Your task to perform on an android device: set default search engine in the chrome app Image 0: 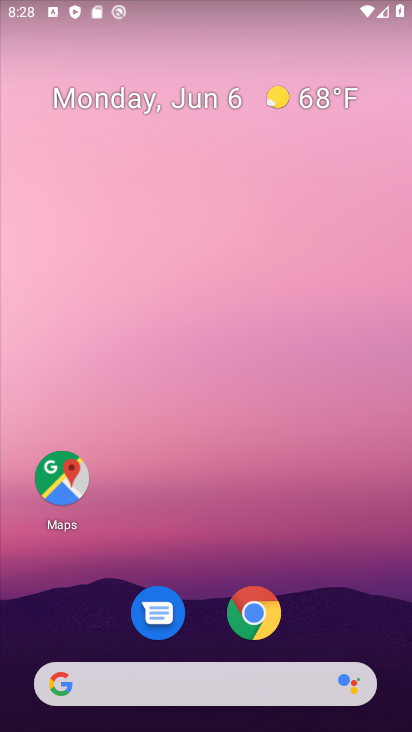
Step 0: click (250, 618)
Your task to perform on an android device: set default search engine in the chrome app Image 1: 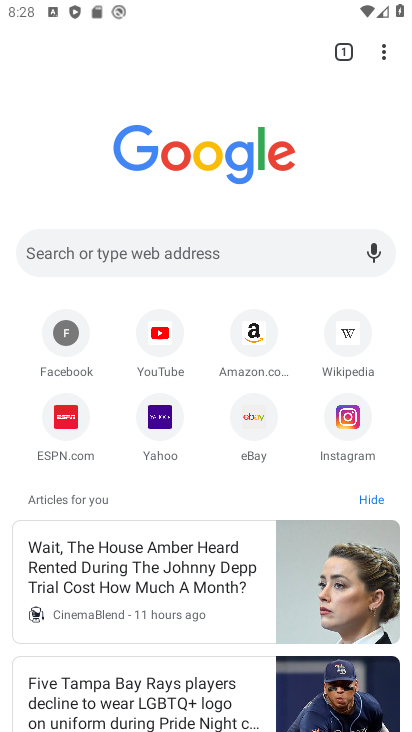
Step 1: click (376, 52)
Your task to perform on an android device: set default search engine in the chrome app Image 2: 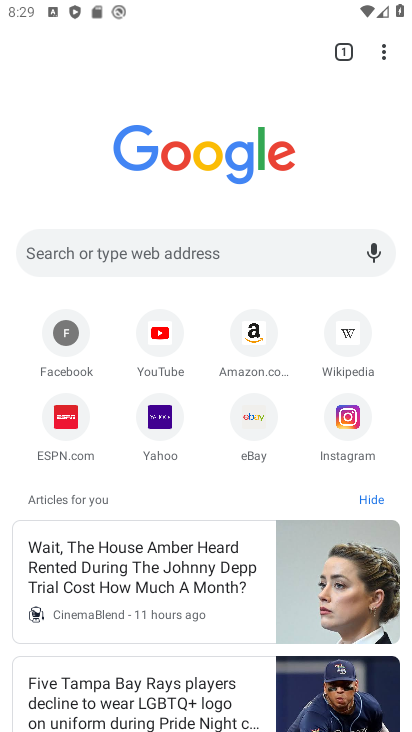
Step 2: click (380, 55)
Your task to perform on an android device: set default search engine in the chrome app Image 3: 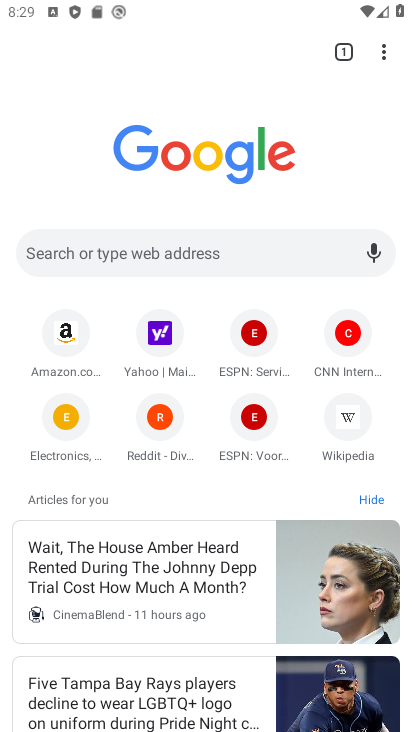
Step 3: click (385, 52)
Your task to perform on an android device: set default search engine in the chrome app Image 4: 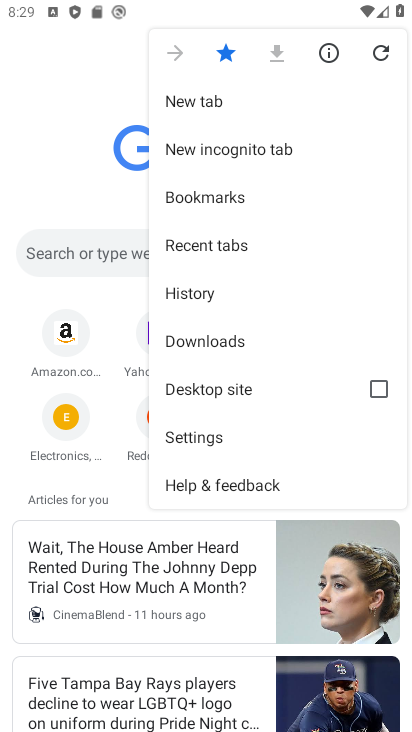
Step 4: click (180, 430)
Your task to perform on an android device: set default search engine in the chrome app Image 5: 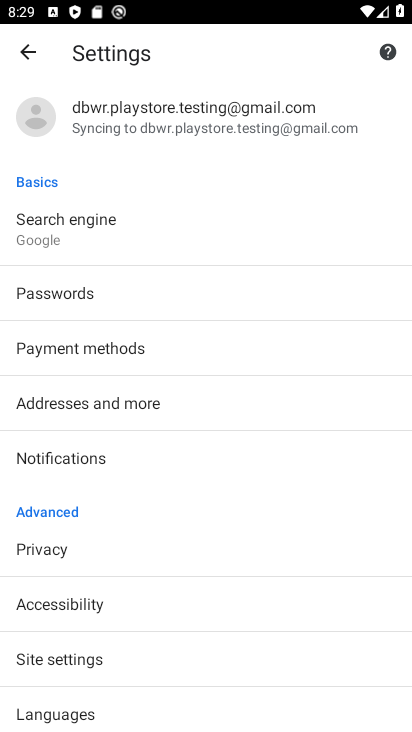
Step 5: click (71, 221)
Your task to perform on an android device: set default search engine in the chrome app Image 6: 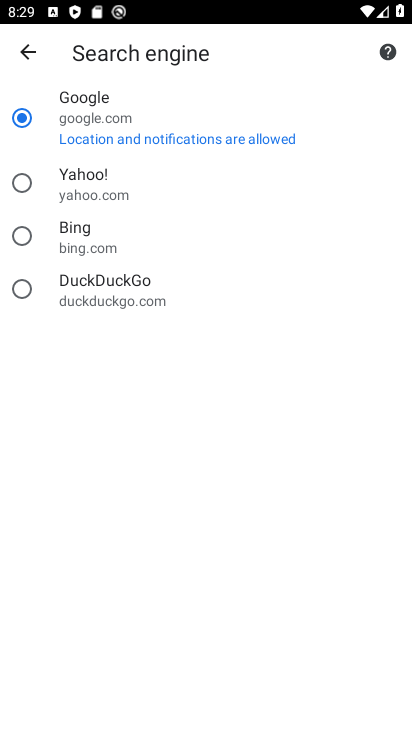
Step 6: task complete